Your task to perform on an android device: set an alarm Image 0: 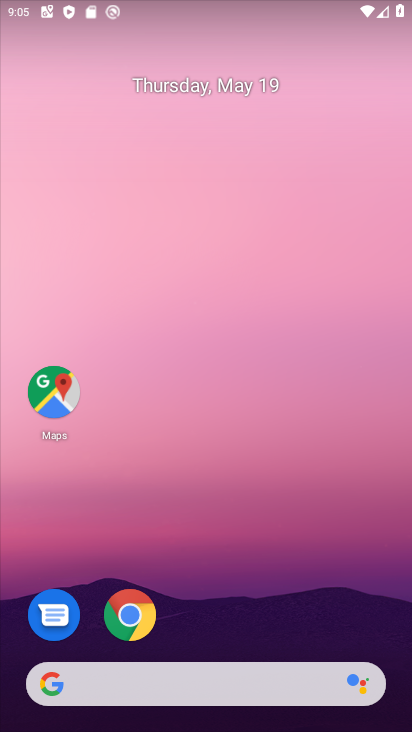
Step 0: press home button
Your task to perform on an android device: set an alarm Image 1: 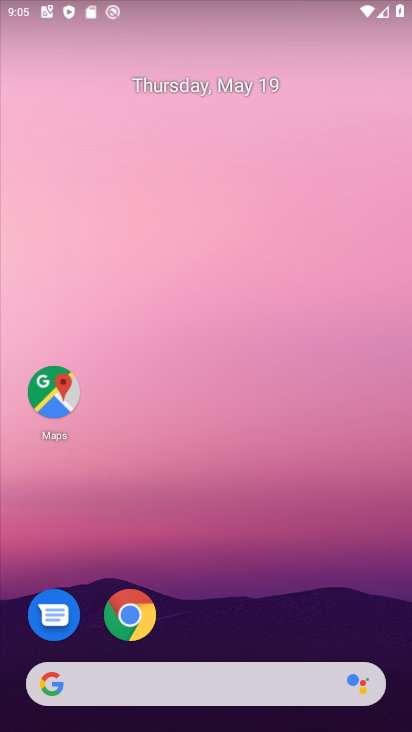
Step 1: drag from (365, 638) to (284, 91)
Your task to perform on an android device: set an alarm Image 2: 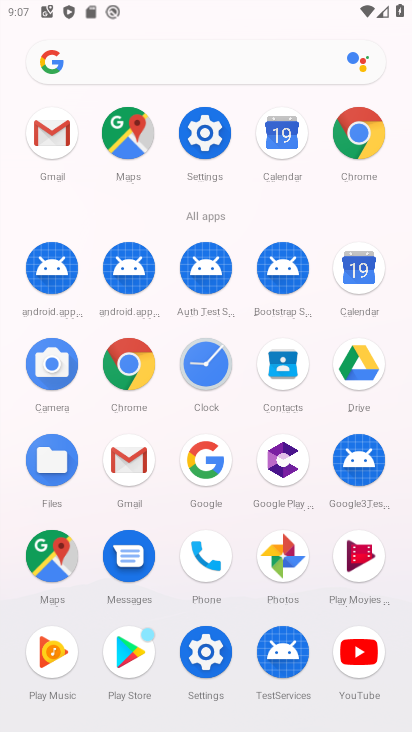
Step 2: click (202, 364)
Your task to perform on an android device: set an alarm Image 3: 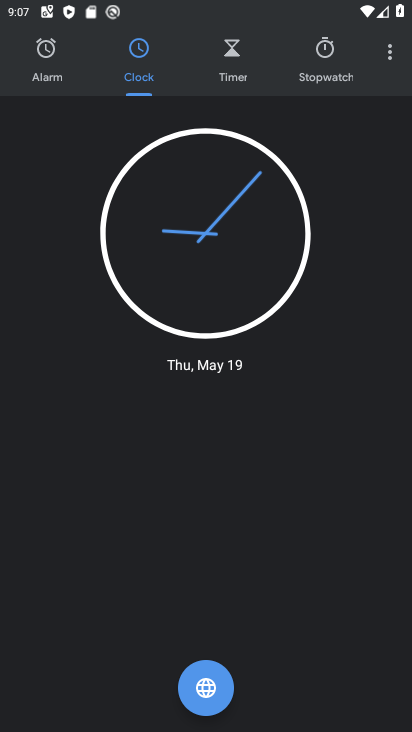
Step 3: click (37, 67)
Your task to perform on an android device: set an alarm Image 4: 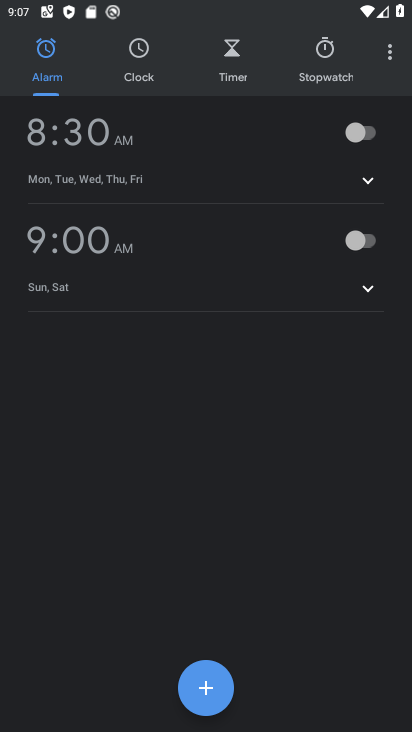
Step 4: click (188, 679)
Your task to perform on an android device: set an alarm Image 5: 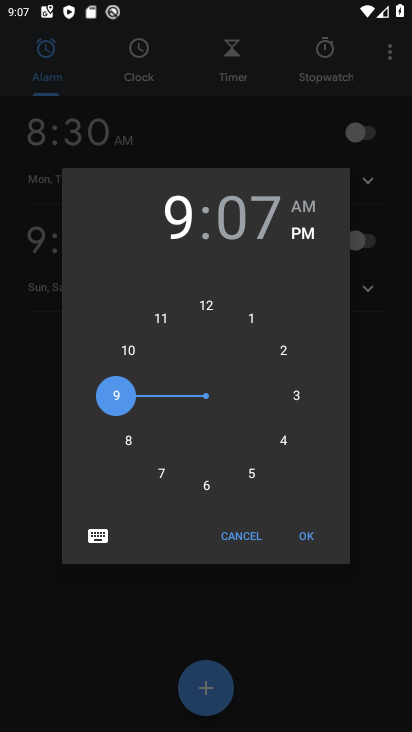
Step 5: click (316, 523)
Your task to perform on an android device: set an alarm Image 6: 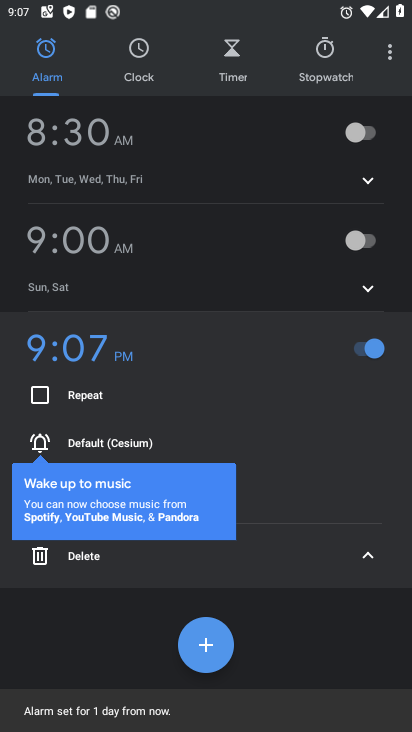
Step 6: task complete